Your task to perform on an android device: Open internet settings Image 0: 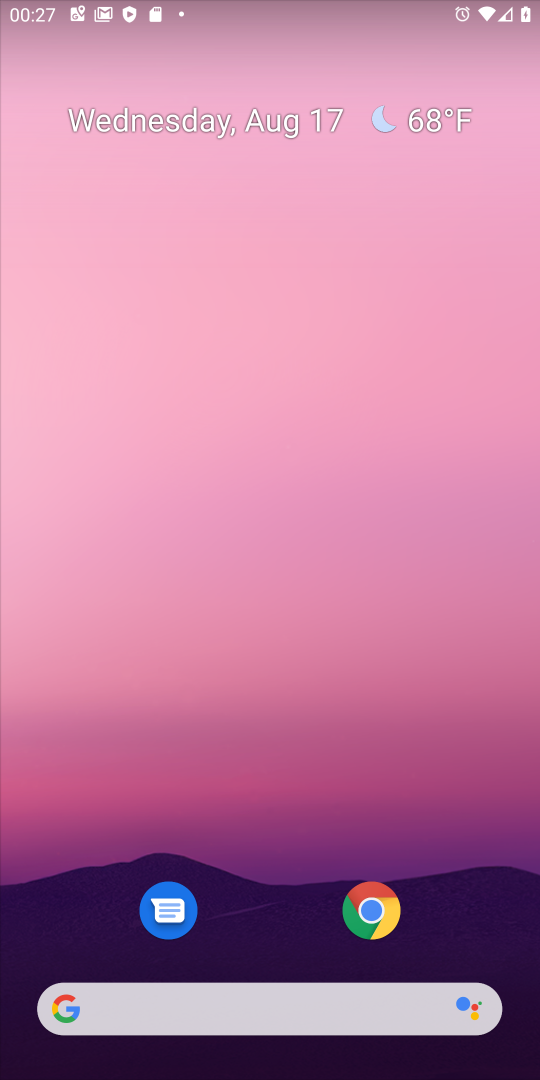
Step 0: drag from (262, 960) to (336, 169)
Your task to perform on an android device: Open internet settings Image 1: 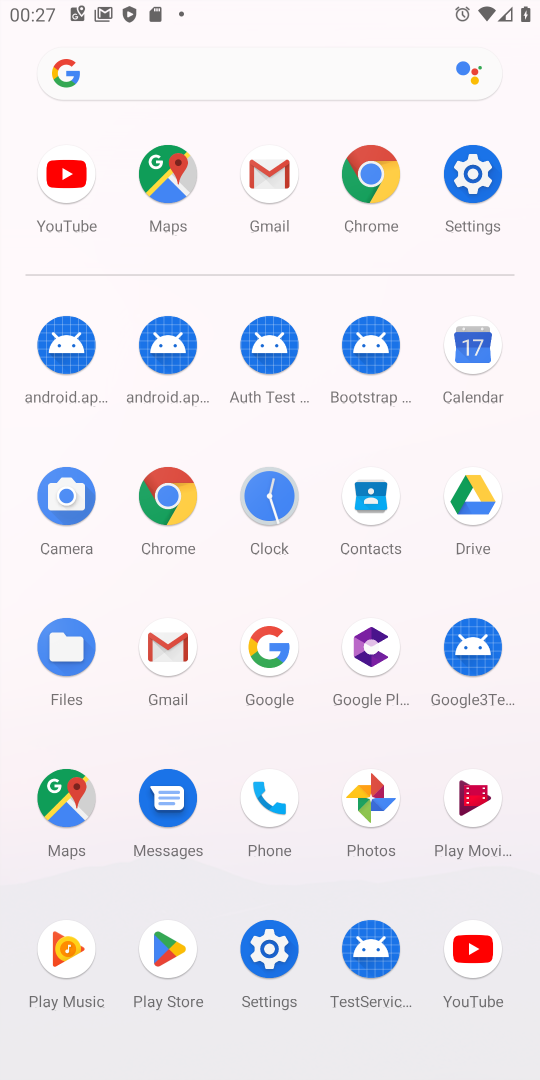
Step 1: click (248, 949)
Your task to perform on an android device: Open internet settings Image 2: 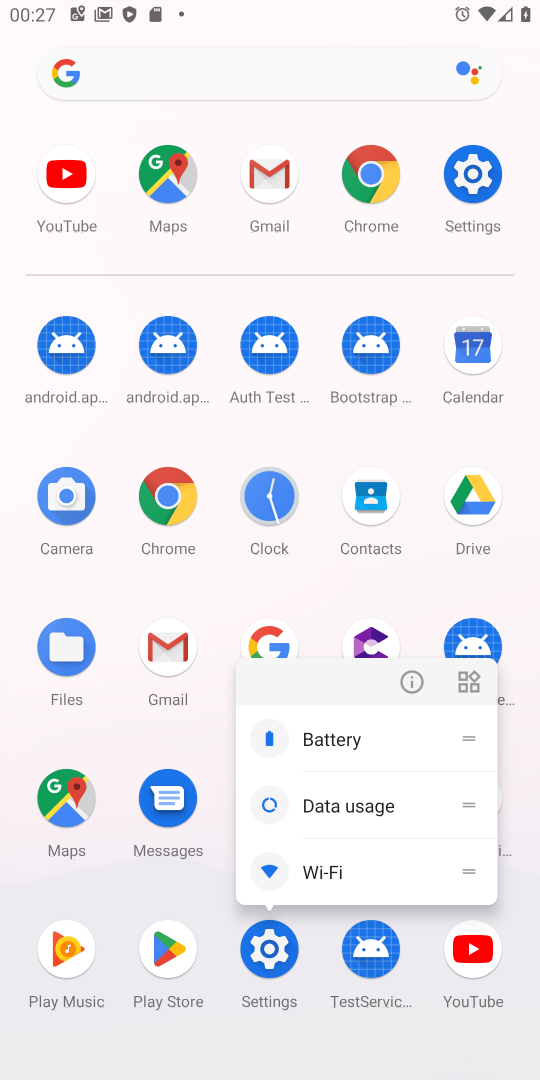
Step 2: click (262, 945)
Your task to perform on an android device: Open internet settings Image 3: 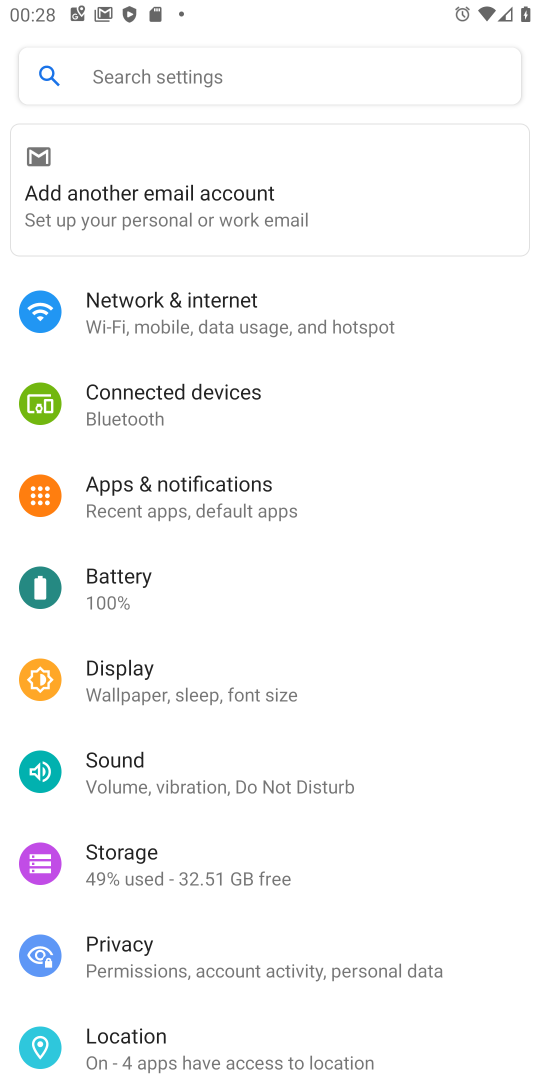
Step 3: click (211, 320)
Your task to perform on an android device: Open internet settings Image 4: 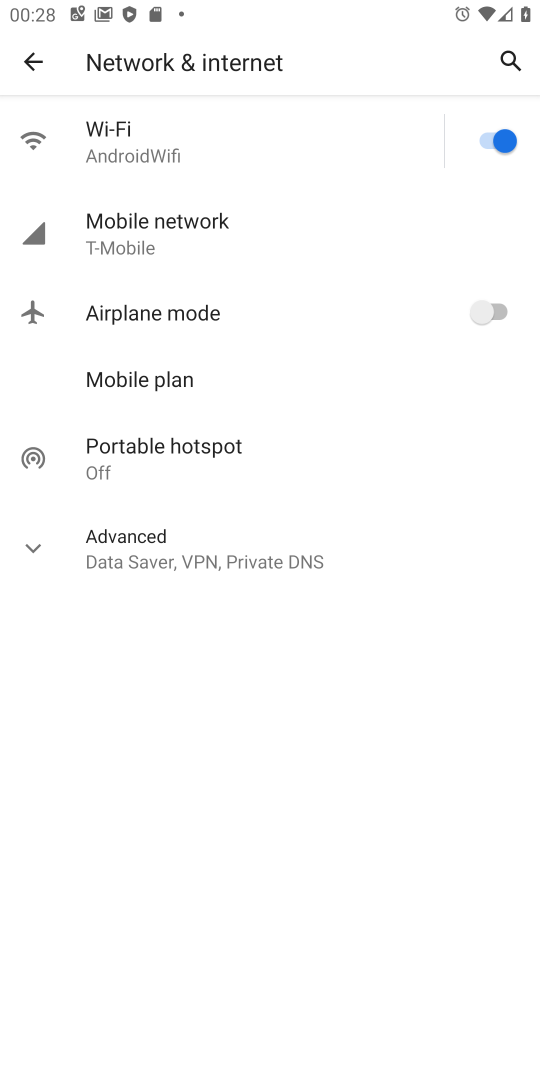
Step 4: task complete